Your task to perform on an android device: manage bookmarks in the chrome app Image 0: 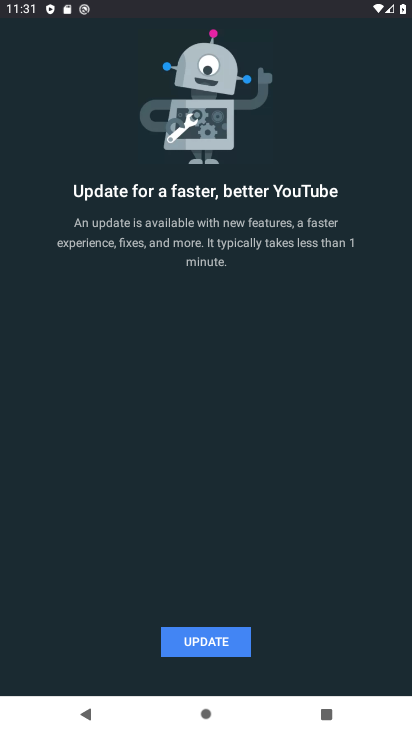
Step 0: press home button
Your task to perform on an android device: manage bookmarks in the chrome app Image 1: 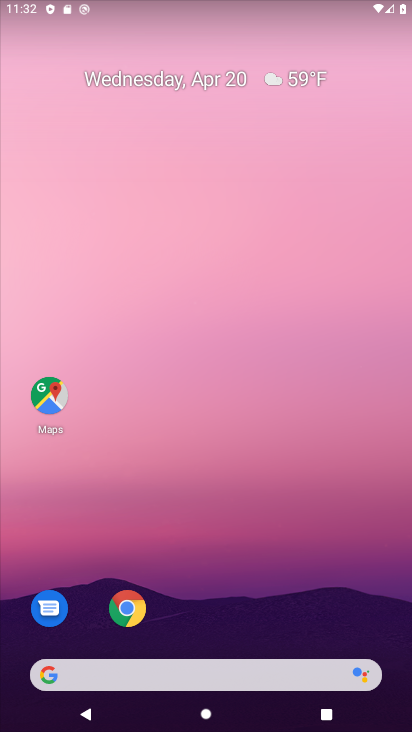
Step 1: drag from (239, 593) to (251, 166)
Your task to perform on an android device: manage bookmarks in the chrome app Image 2: 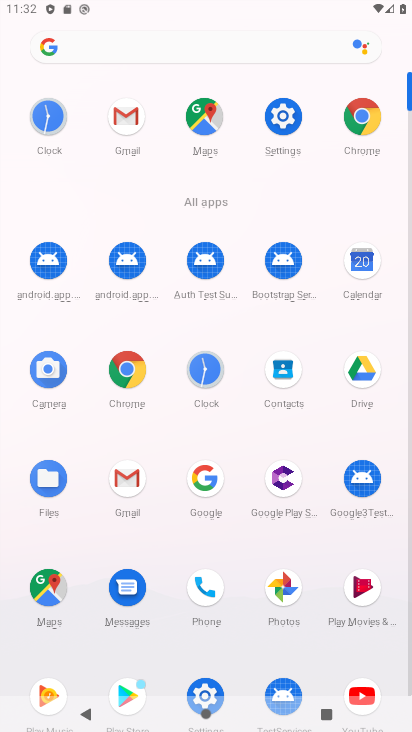
Step 2: click (365, 114)
Your task to perform on an android device: manage bookmarks in the chrome app Image 3: 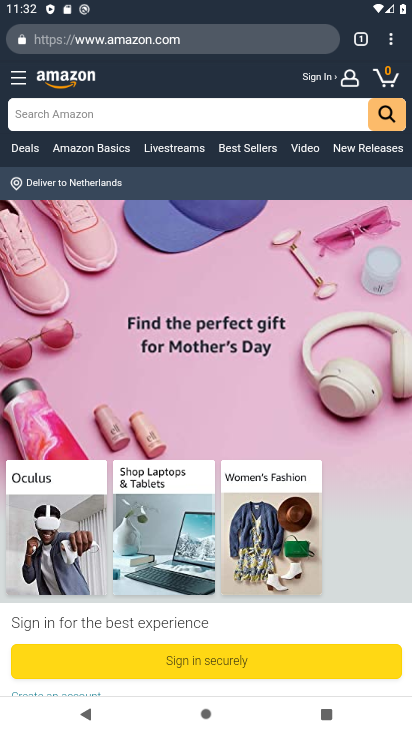
Step 3: click (388, 39)
Your task to perform on an android device: manage bookmarks in the chrome app Image 4: 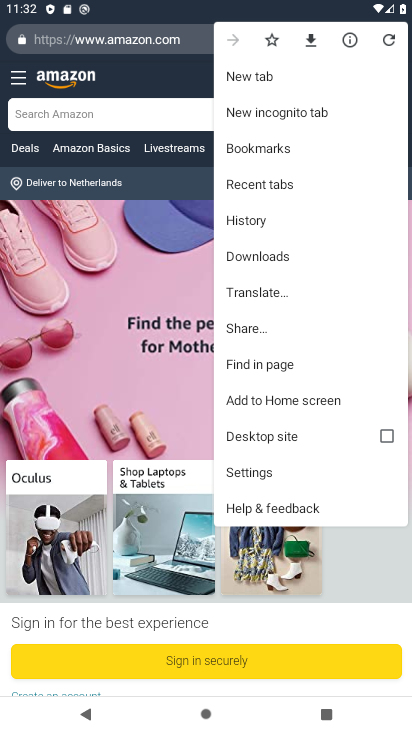
Step 4: click (303, 148)
Your task to perform on an android device: manage bookmarks in the chrome app Image 5: 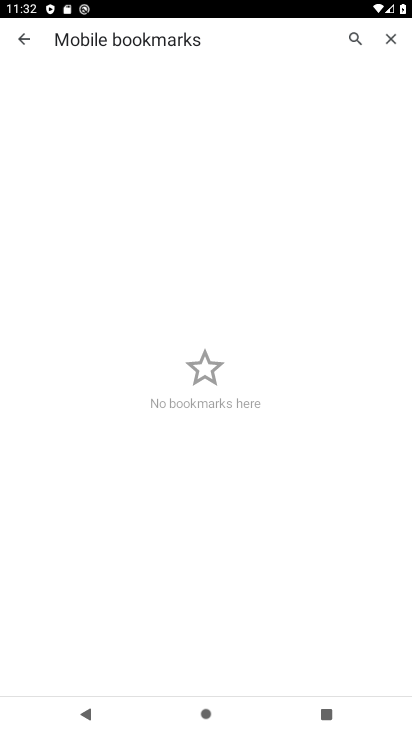
Step 5: task complete